Your task to perform on an android device: turn pop-ups on in chrome Image 0: 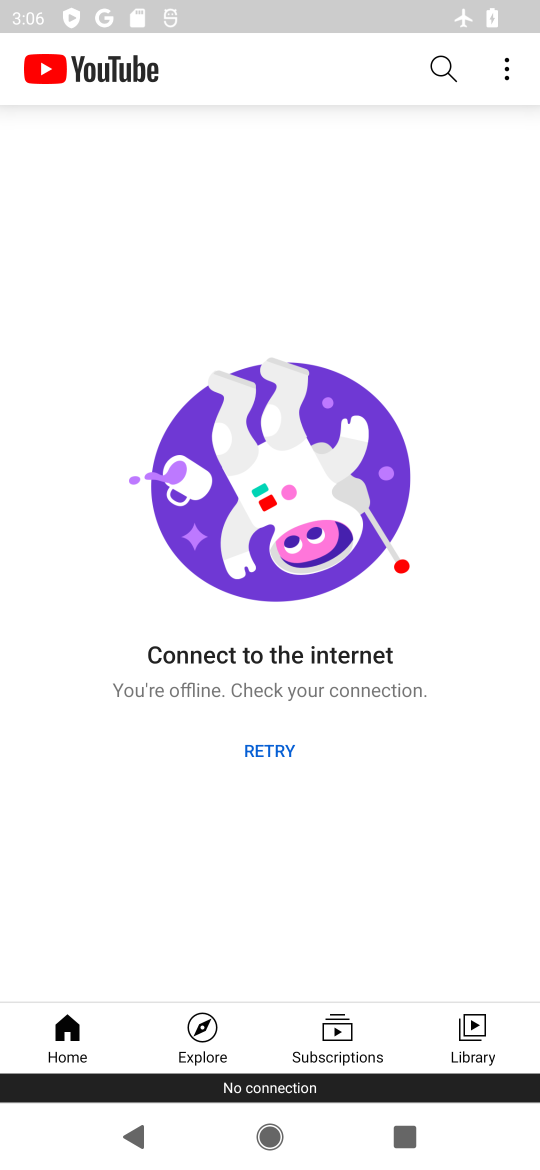
Step 0: press home button
Your task to perform on an android device: turn pop-ups on in chrome Image 1: 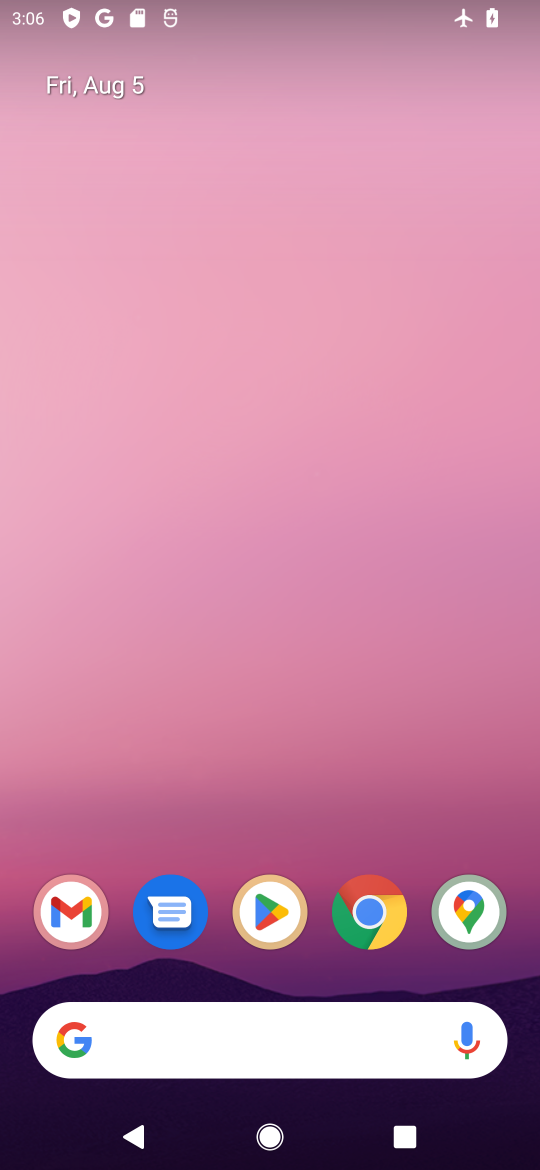
Step 1: click (375, 914)
Your task to perform on an android device: turn pop-ups on in chrome Image 2: 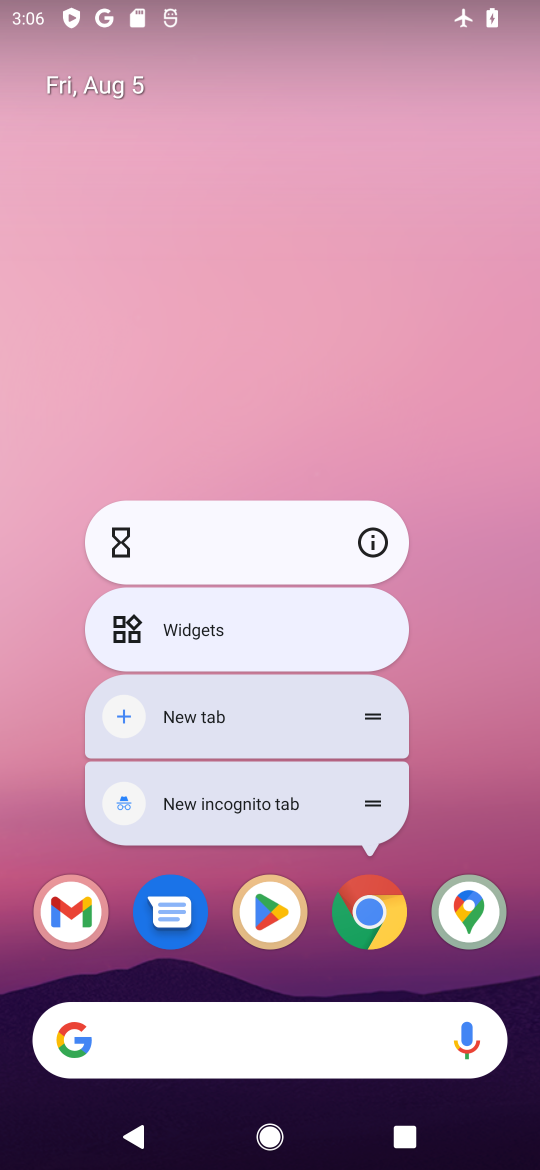
Step 2: click (375, 914)
Your task to perform on an android device: turn pop-ups on in chrome Image 3: 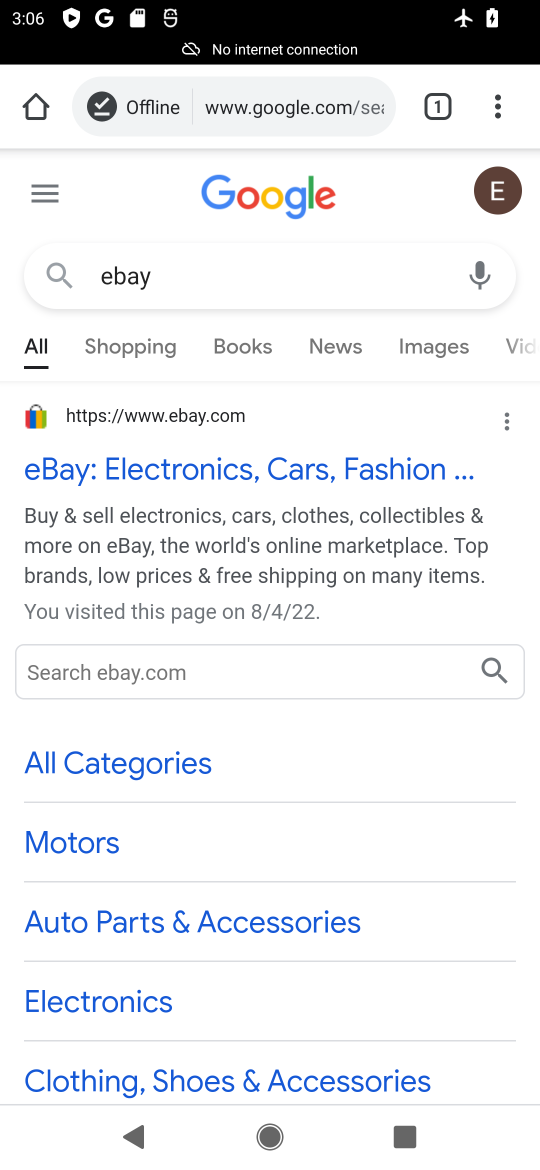
Step 3: click (496, 107)
Your task to perform on an android device: turn pop-ups on in chrome Image 4: 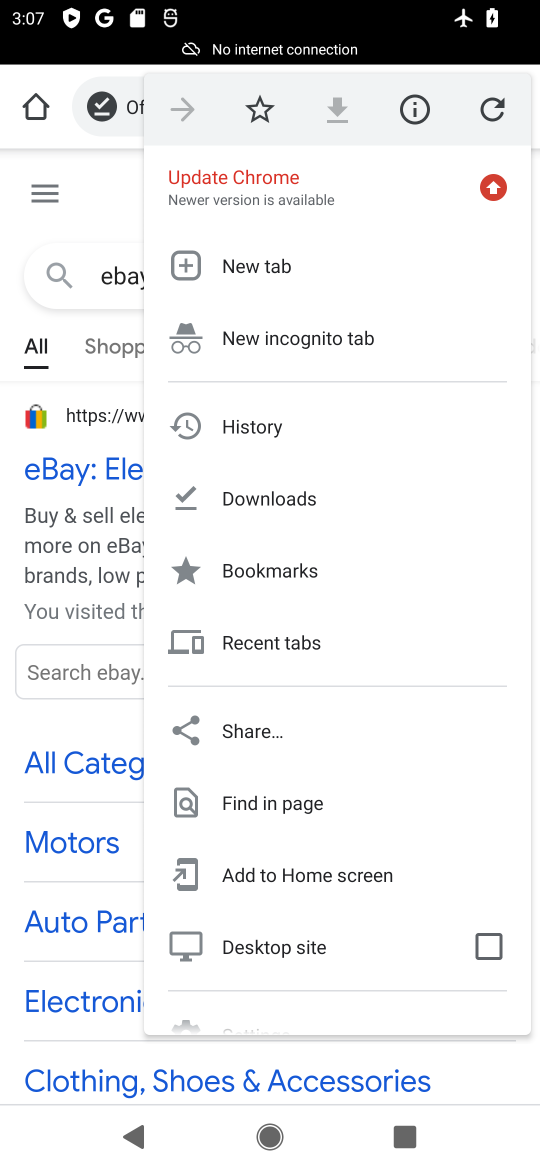
Step 4: drag from (234, 933) to (247, 478)
Your task to perform on an android device: turn pop-ups on in chrome Image 5: 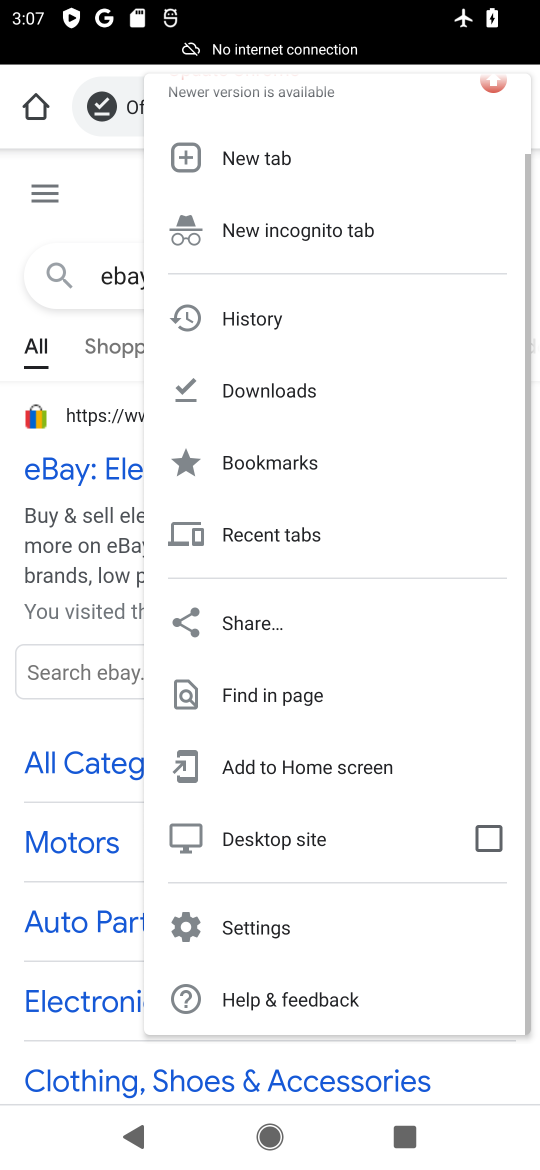
Step 5: click (265, 943)
Your task to perform on an android device: turn pop-ups on in chrome Image 6: 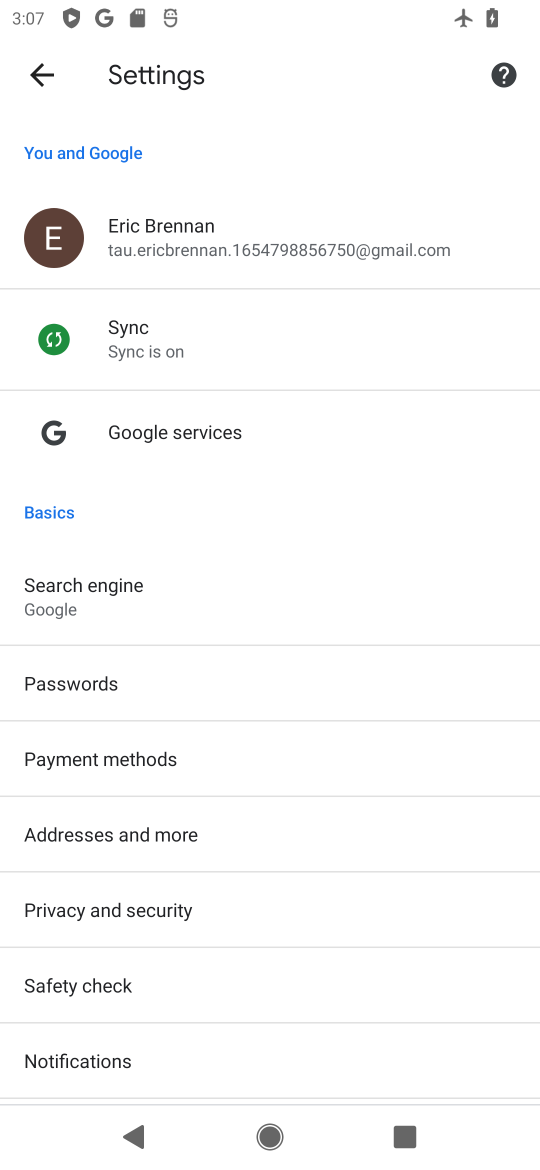
Step 6: drag from (109, 964) to (150, 602)
Your task to perform on an android device: turn pop-ups on in chrome Image 7: 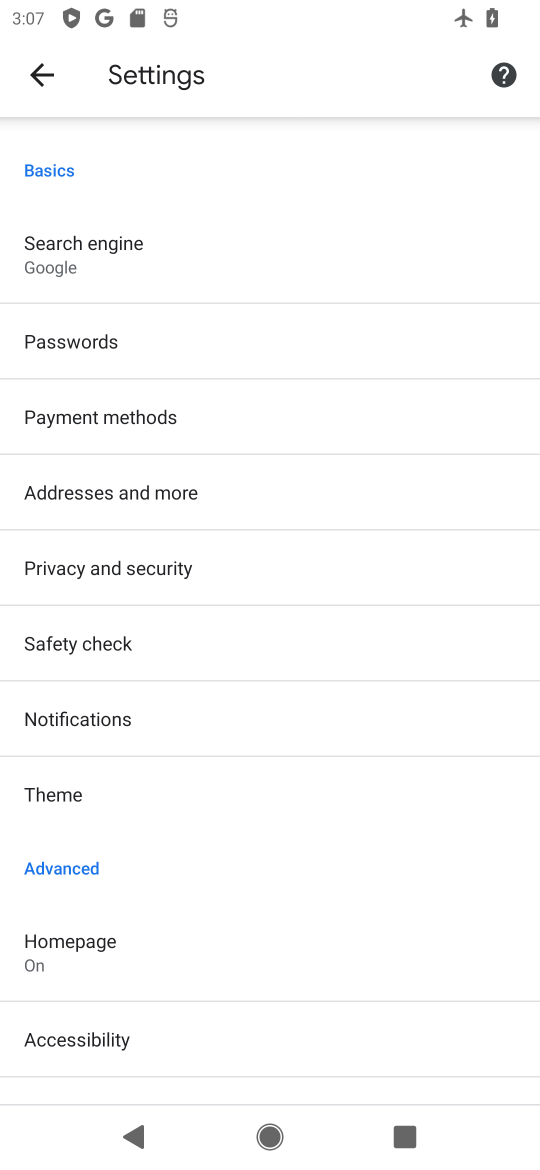
Step 7: drag from (109, 1013) to (118, 600)
Your task to perform on an android device: turn pop-ups on in chrome Image 8: 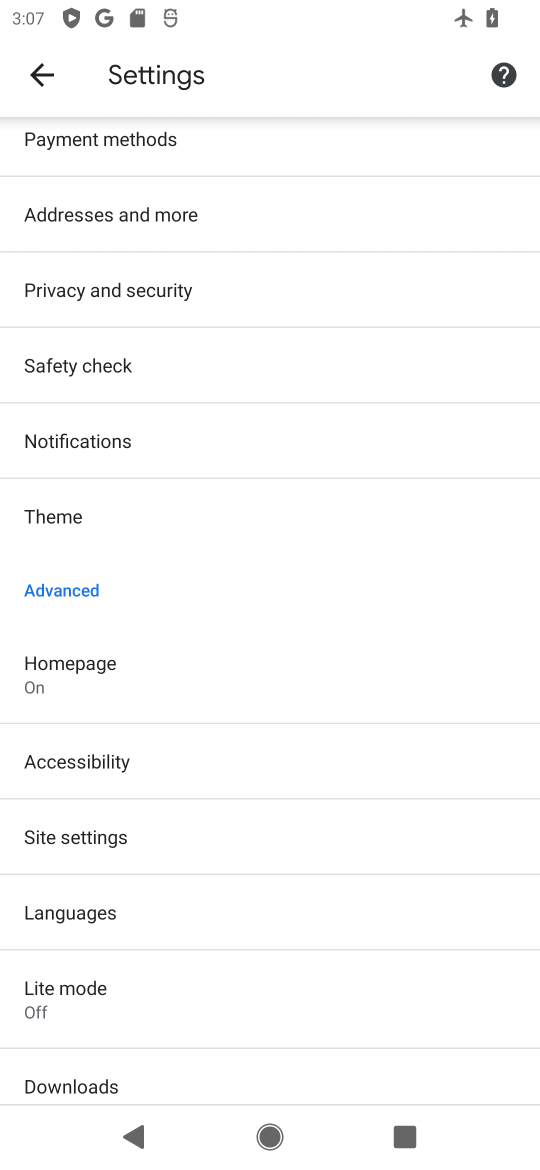
Step 8: click (102, 844)
Your task to perform on an android device: turn pop-ups on in chrome Image 9: 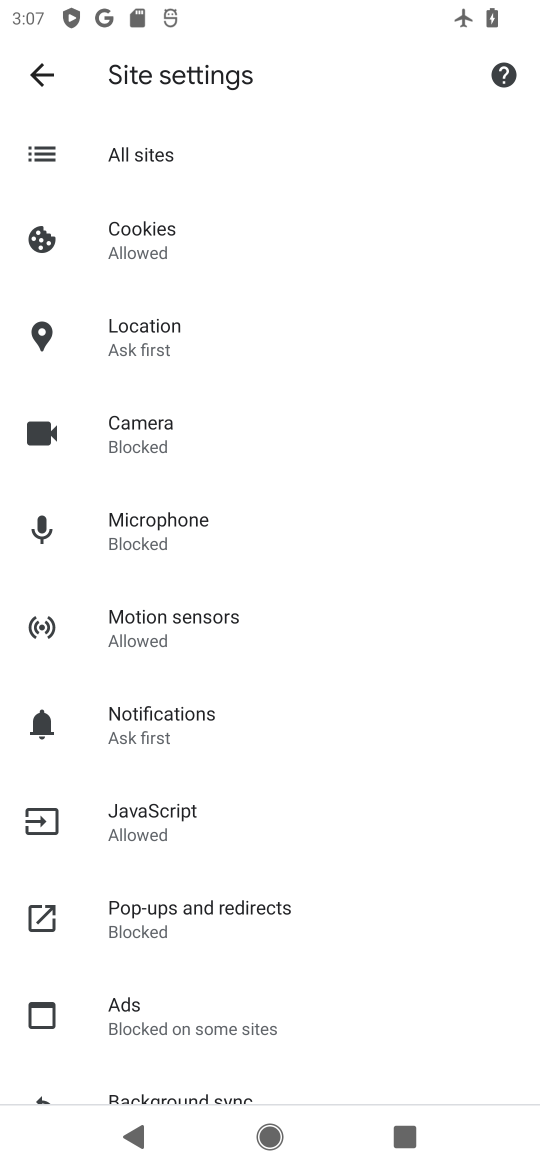
Step 9: click (212, 930)
Your task to perform on an android device: turn pop-ups on in chrome Image 10: 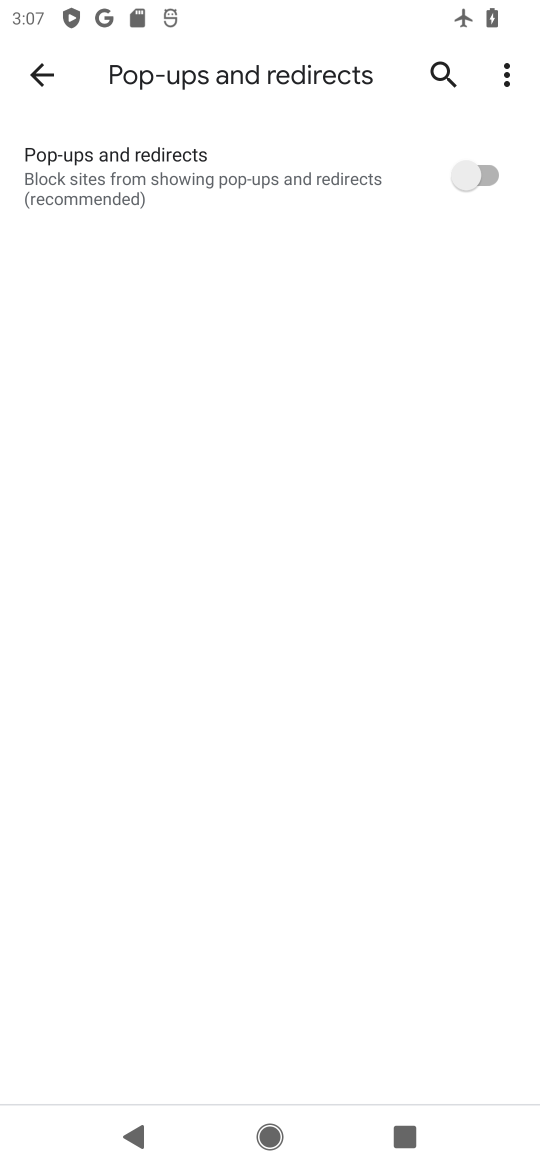
Step 10: click (467, 179)
Your task to perform on an android device: turn pop-ups on in chrome Image 11: 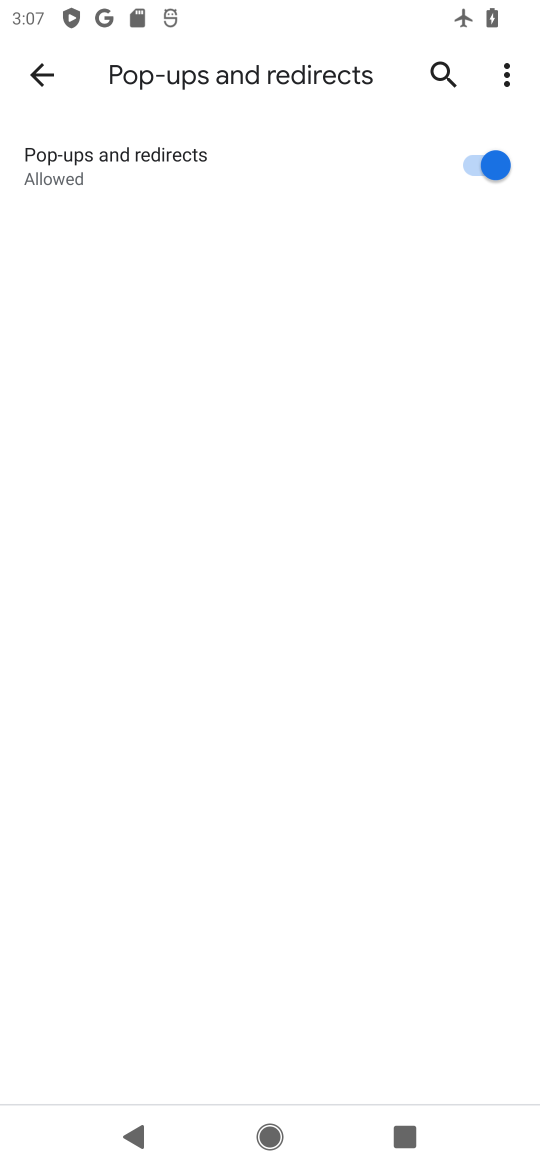
Step 11: task complete